Your task to perform on an android device: turn off improve location accuracy Image 0: 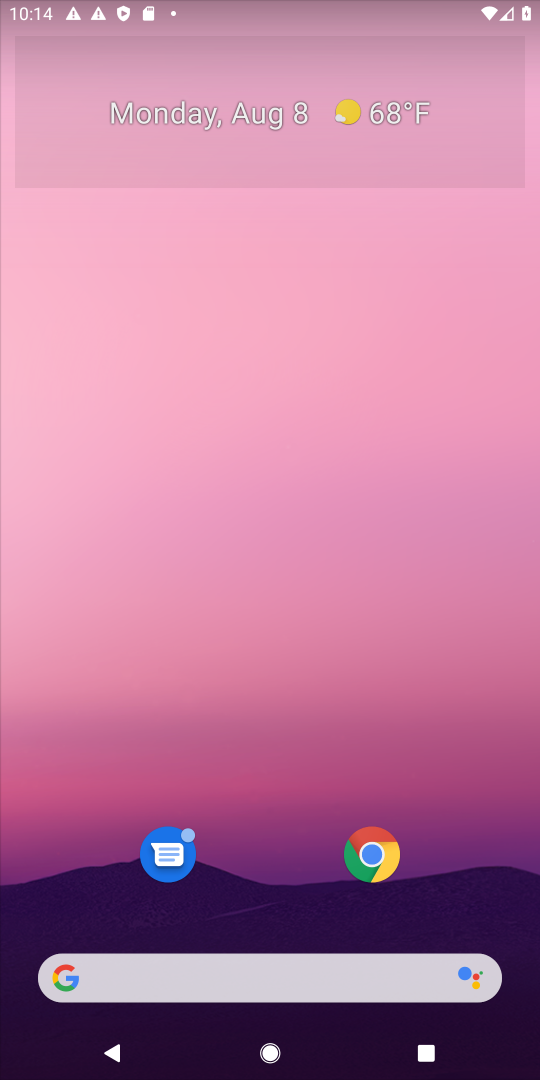
Step 0: drag from (378, 746) to (390, 334)
Your task to perform on an android device: turn off improve location accuracy Image 1: 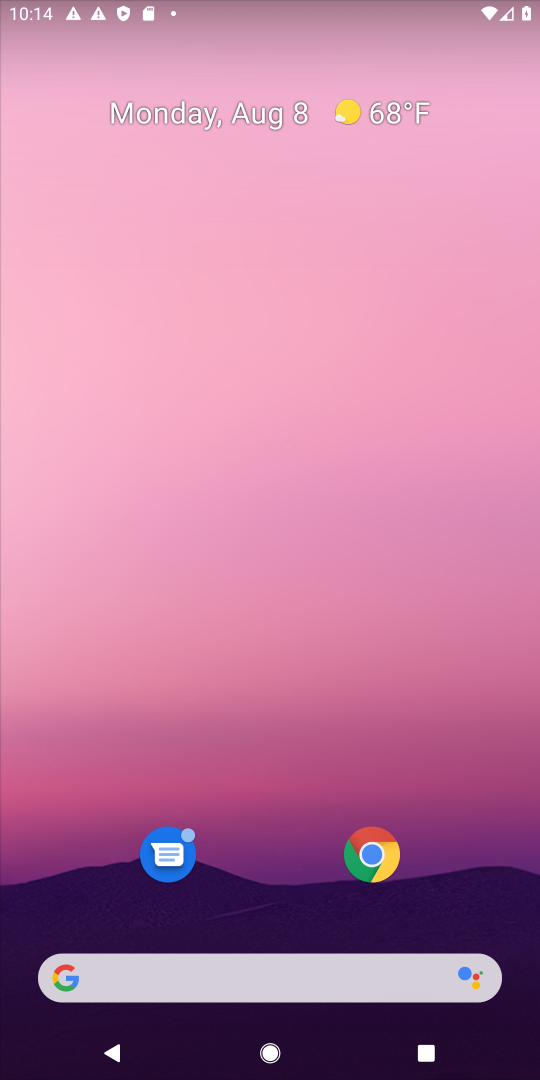
Step 1: drag from (285, 724) to (298, 284)
Your task to perform on an android device: turn off improve location accuracy Image 2: 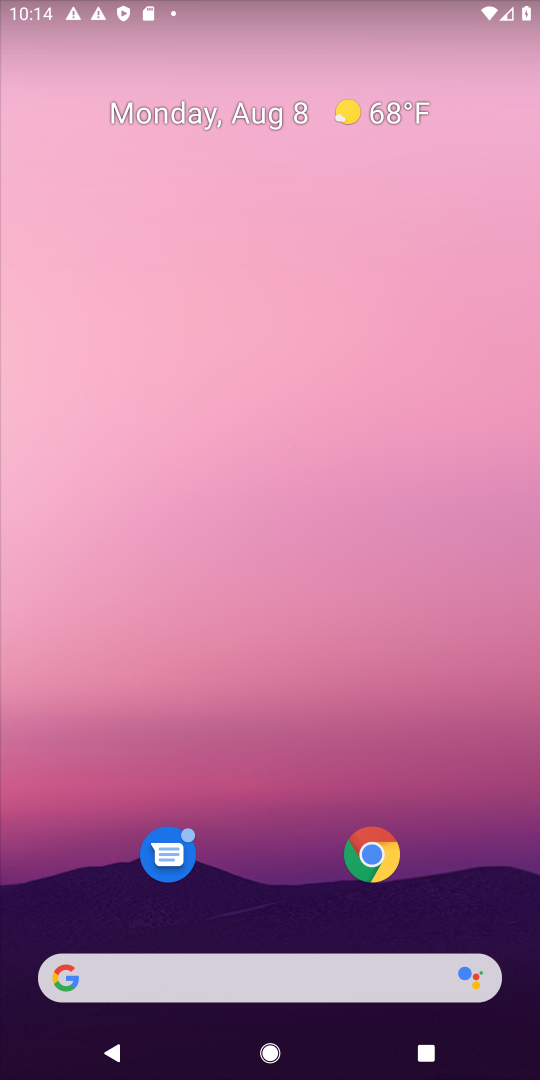
Step 2: drag from (288, 695) to (350, 172)
Your task to perform on an android device: turn off improve location accuracy Image 3: 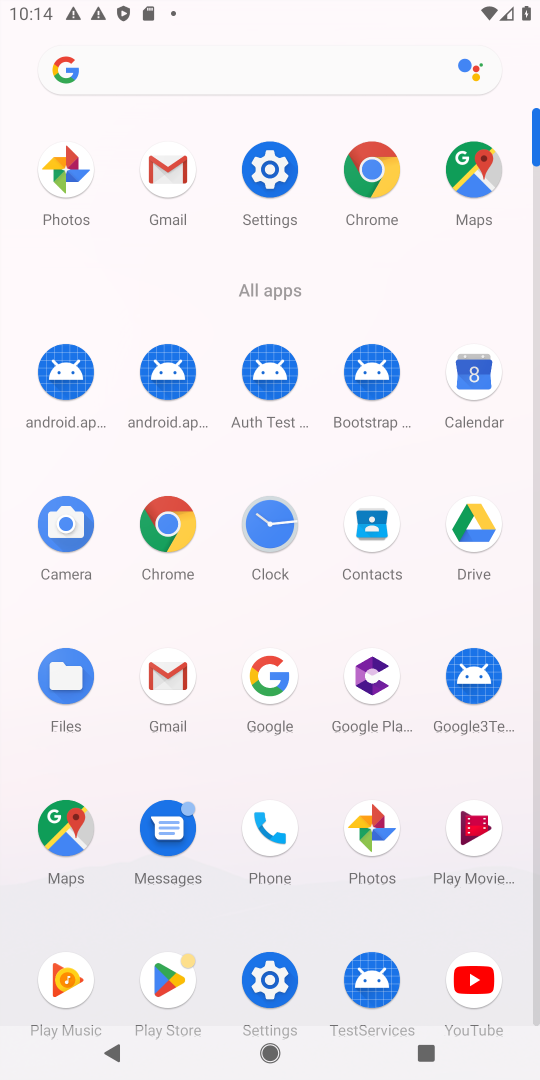
Step 3: click (255, 186)
Your task to perform on an android device: turn off improve location accuracy Image 4: 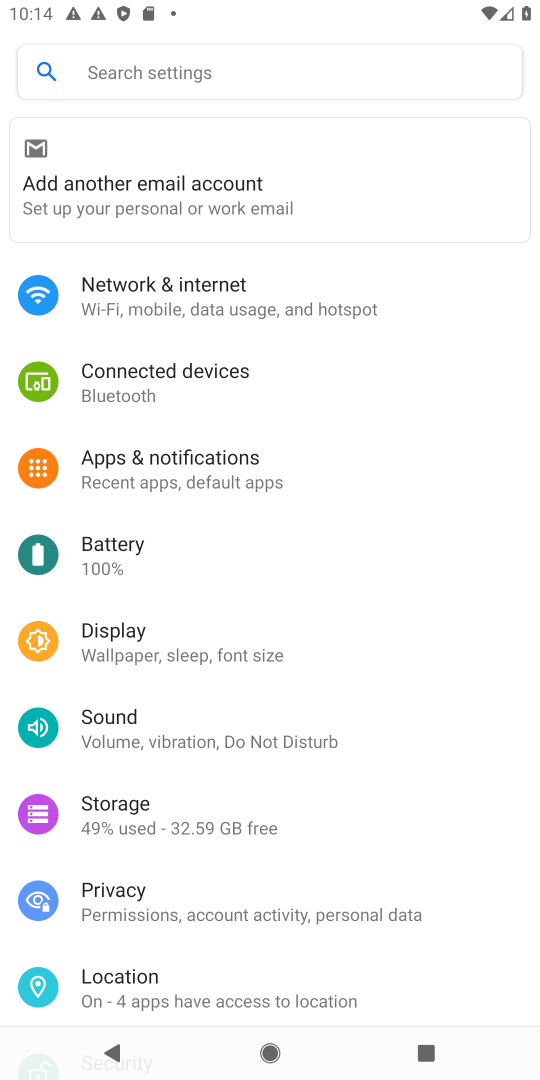
Step 4: task complete